Your task to perform on an android device: delete the emails in spam in the gmail app Image 0: 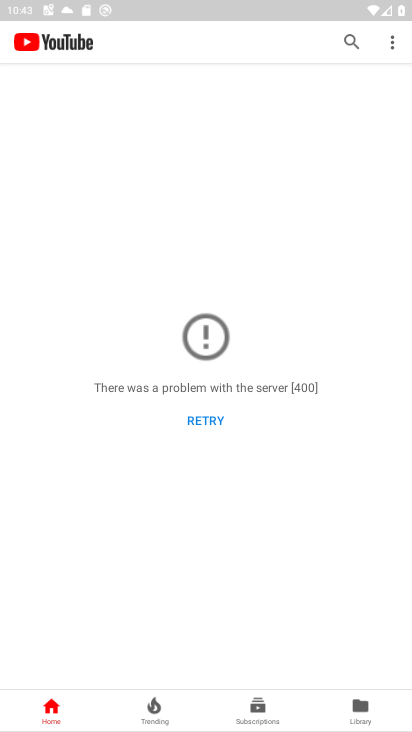
Step 0: press home button
Your task to perform on an android device: delete the emails in spam in the gmail app Image 1: 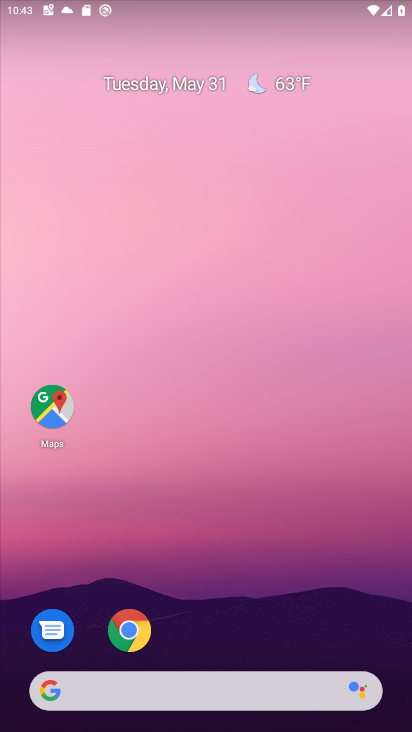
Step 1: drag from (220, 504) to (228, 82)
Your task to perform on an android device: delete the emails in spam in the gmail app Image 2: 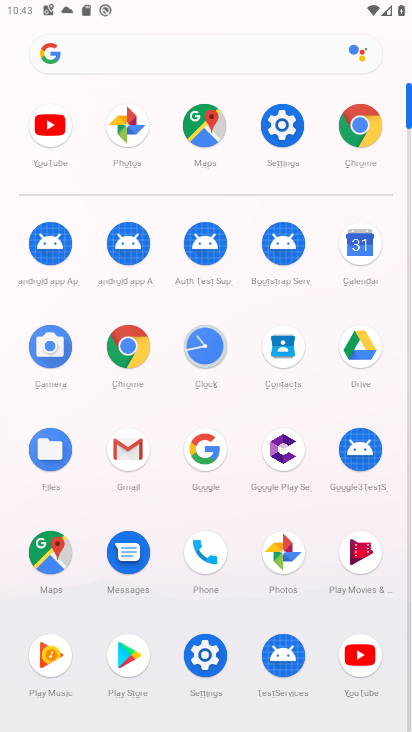
Step 2: click (131, 453)
Your task to perform on an android device: delete the emails in spam in the gmail app Image 3: 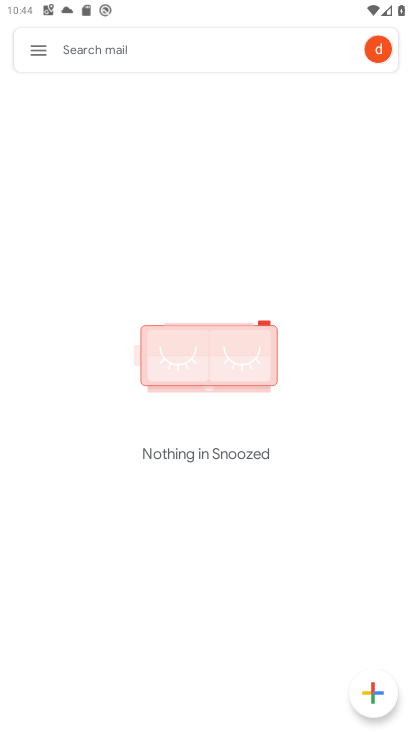
Step 3: click (44, 48)
Your task to perform on an android device: delete the emails in spam in the gmail app Image 4: 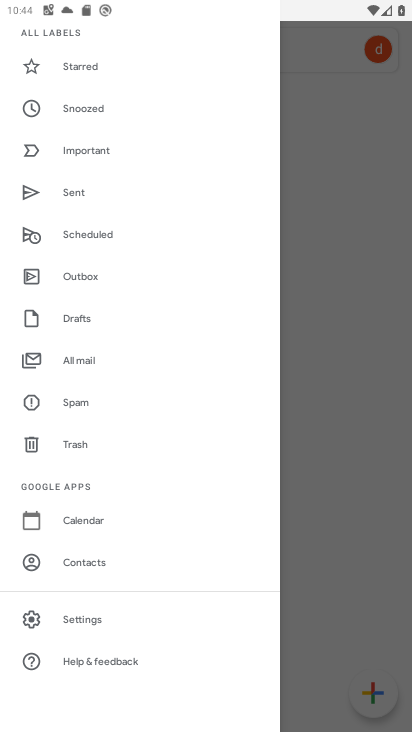
Step 4: click (81, 396)
Your task to perform on an android device: delete the emails in spam in the gmail app Image 5: 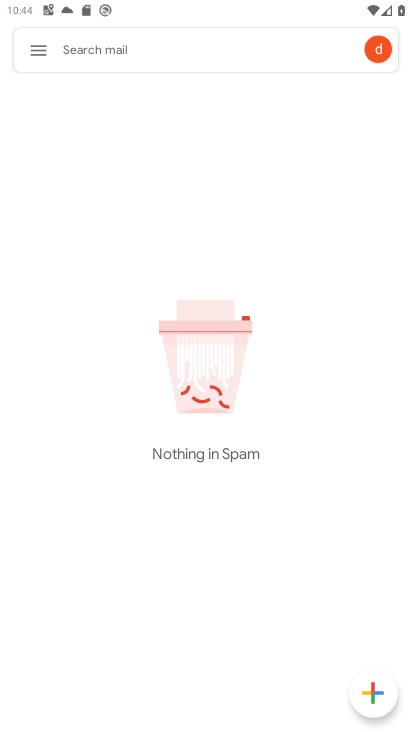
Step 5: task complete